Your task to perform on an android device: toggle airplane mode Image 0: 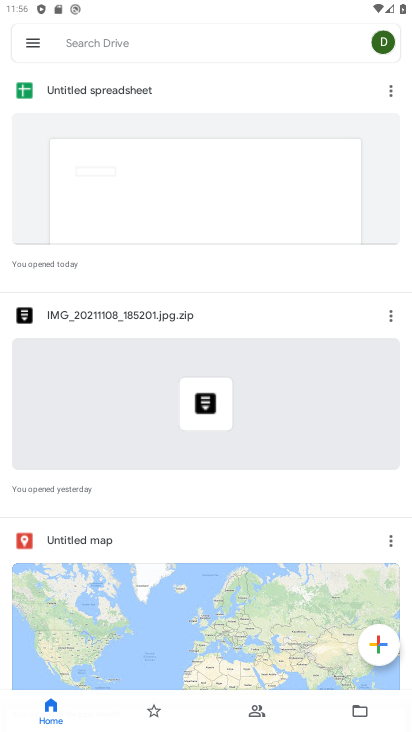
Step 0: press back button
Your task to perform on an android device: toggle airplane mode Image 1: 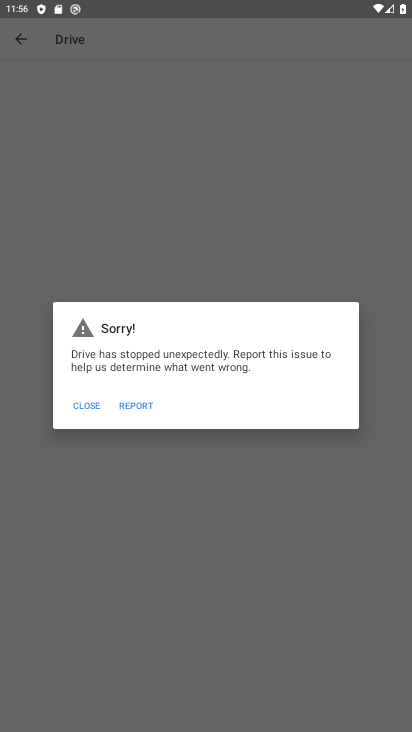
Step 1: press home button
Your task to perform on an android device: toggle airplane mode Image 2: 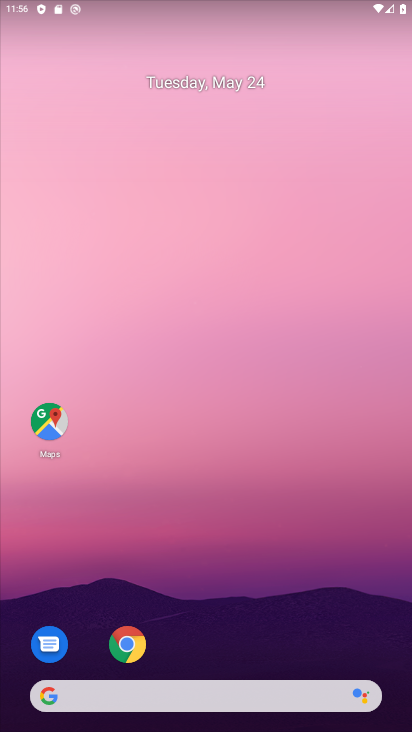
Step 2: drag from (203, 681) to (292, 192)
Your task to perform on an android device: toggle airplane mode Image 3: 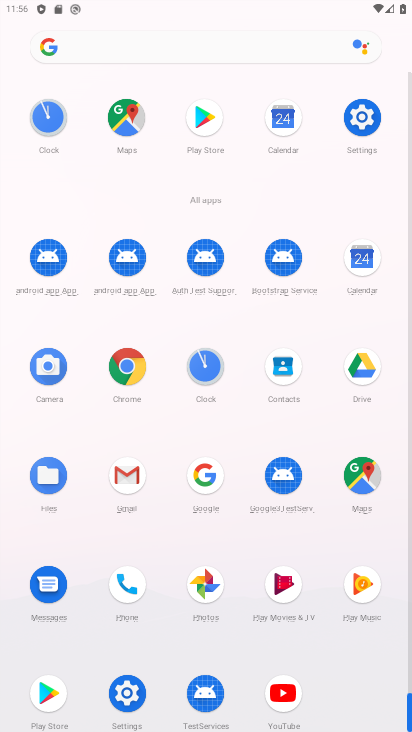
Step 3: drag from (140, 635) to (174, 478)
Your task to perform on an android device: toggle airplane mode Image 4: 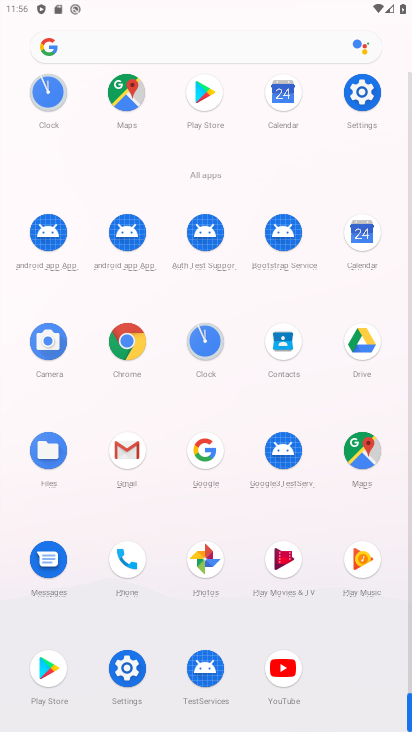
Step 4: click (123, 666)
Your task to perform on an android device: toggle airplane mode Image 5: 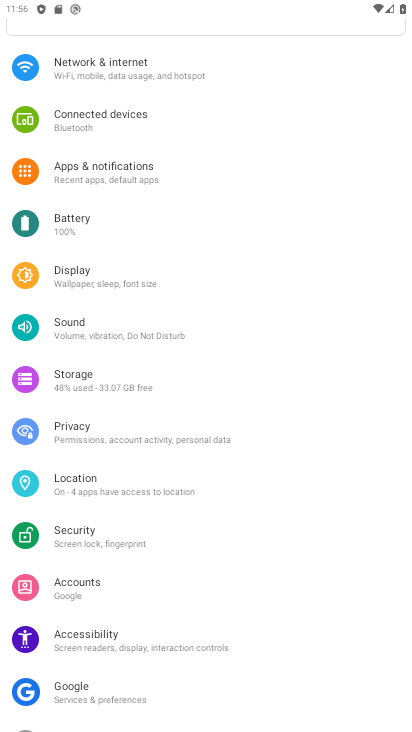
Step 5: click (186, 73)
Your task to perform on an android device: toggle airplane mode Image 6: 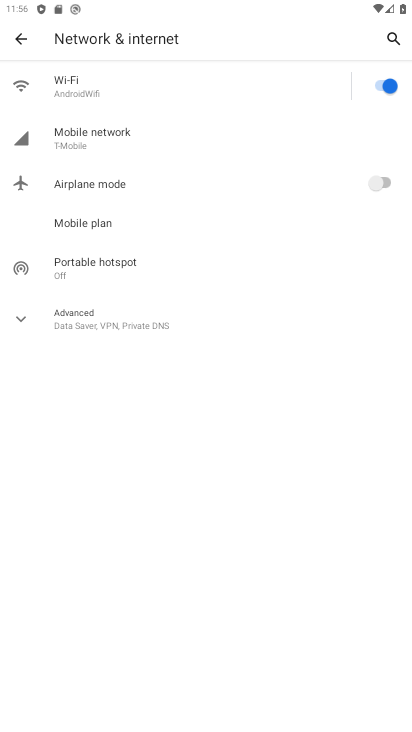
Step 6: click (395, 174)
Your task to perform on an android device: toggle airplane mode Image 7: 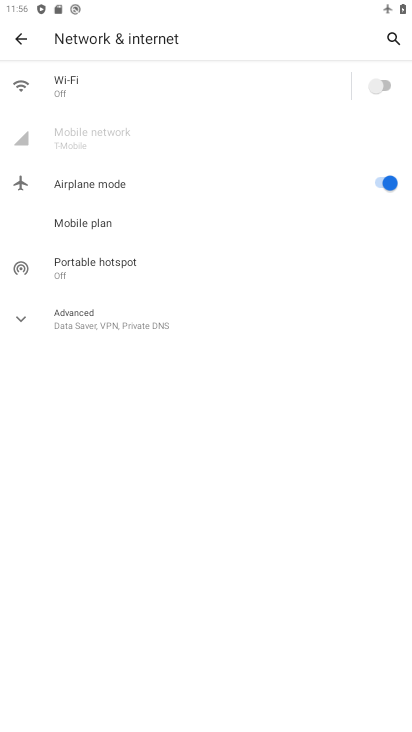
Step 7: task complete